Your task to perform on an android device: search for starred emails in the gmail app Image 0: 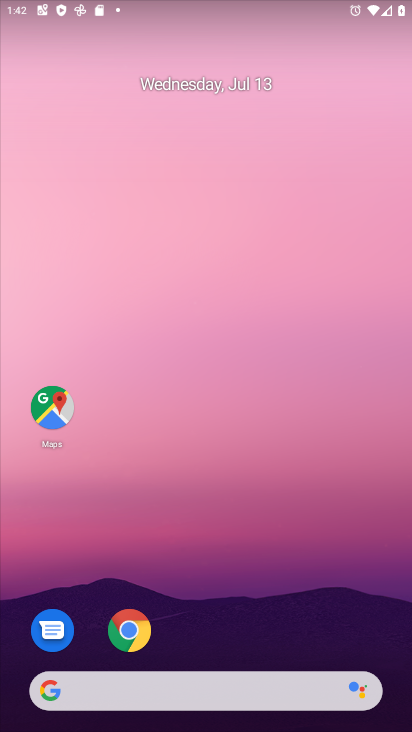
Step 0: drag from (389, 672) to (173, 30)
Your task to perform on an android device: search for starred emails in the gmail app Image 1: 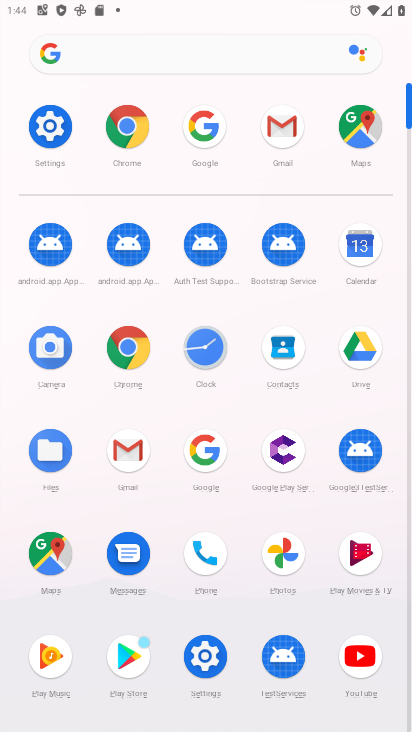
Step 1: click (146, 449)
Your task to perform on an android device: search for starred emails in the gmail app Image 2: 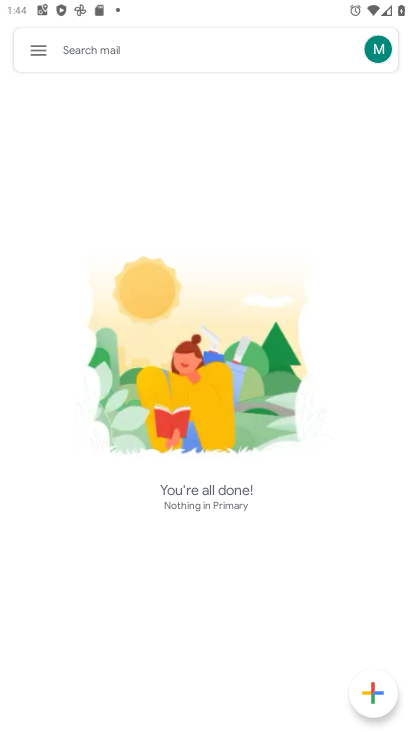
Step 2: click (28, 47)
Your task to perform on an android device: search for starred emails in the gmail app Image 3: 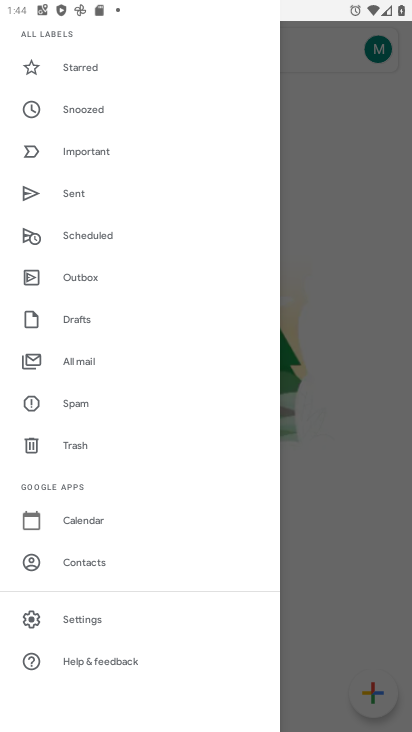
Step 3: click (109, 64)
Your task to perform on an android device: search for starred emails in the gmail app Image 4: 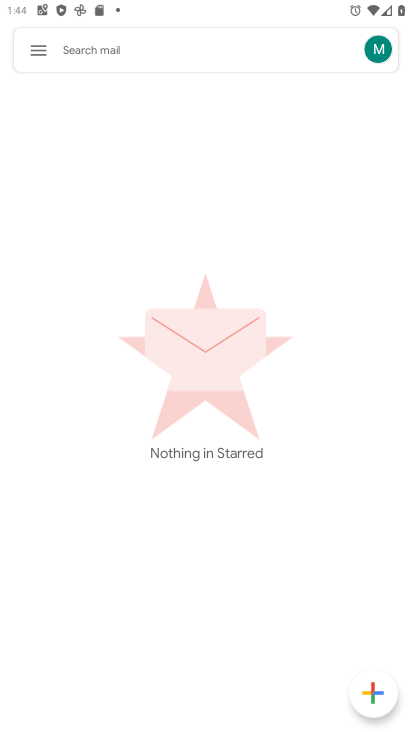
Step 4: task complete